Your task to perform on an android device: Is it going to rain this weekend? Image 0: 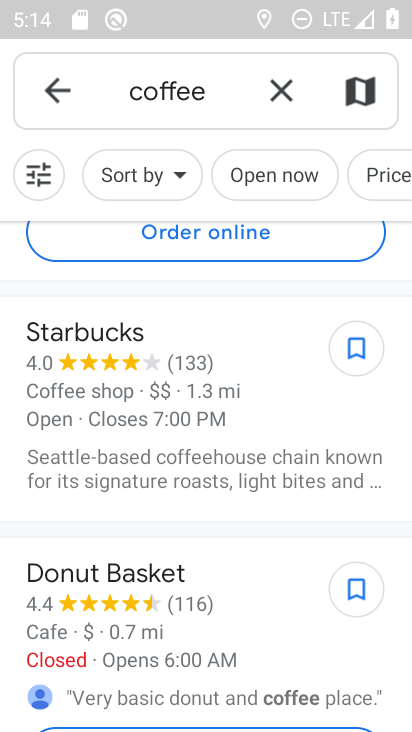
Step 0: press home button
Your task to perform on an android device: Is it going to rain this weekend? Image 1: 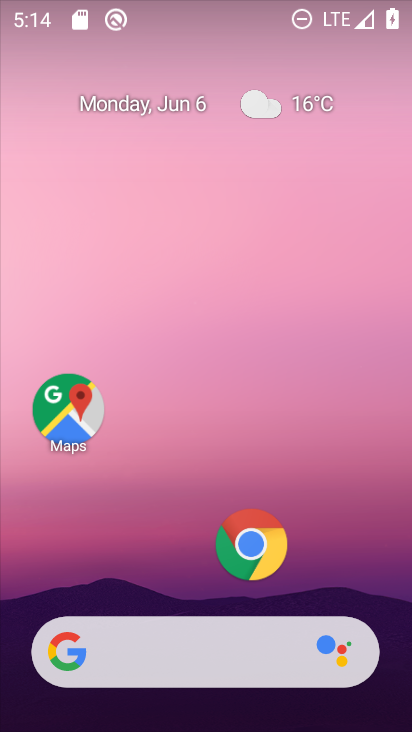
Step 1: click (308, 97)
Your task to perform on an android device: Is it going to rain this weekend? Image 2: 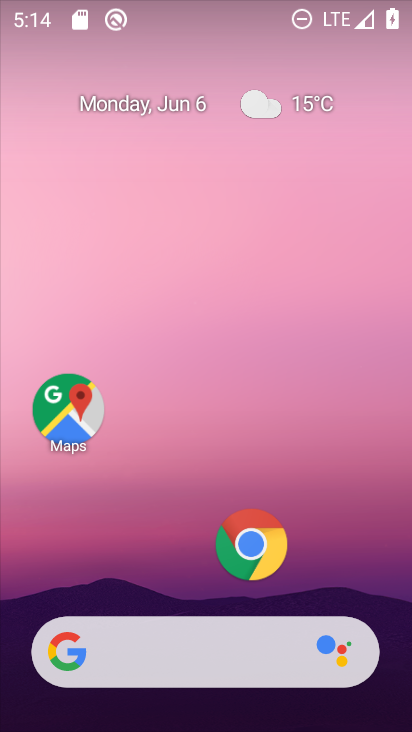
Step 2: click (304, 102)
Your task to perform on an android device: Is it going to rain this weekend? Image 3: 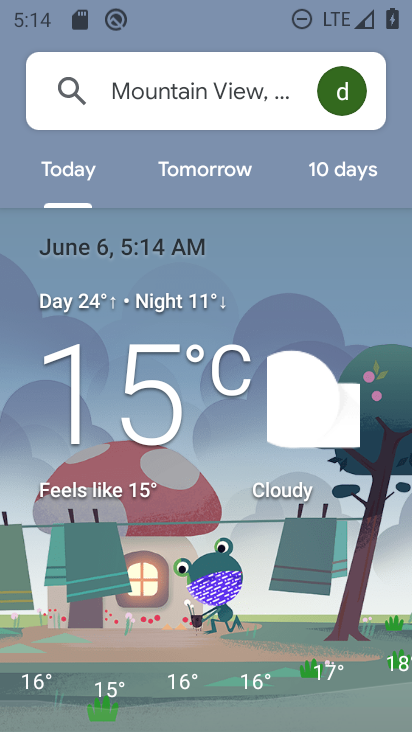
Step 3: drag from (218, 618) to (212, 183)
Your task to perform on an android device: Is it going to rain this weekend? Image 4: 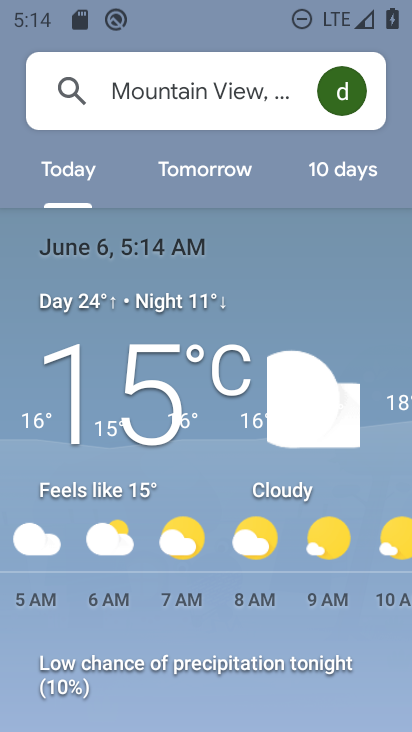
Step 4: drag from (240, 542) to (12, 541)
Your task to perform on an android device: Is it going to rain this weekend? Image 5: 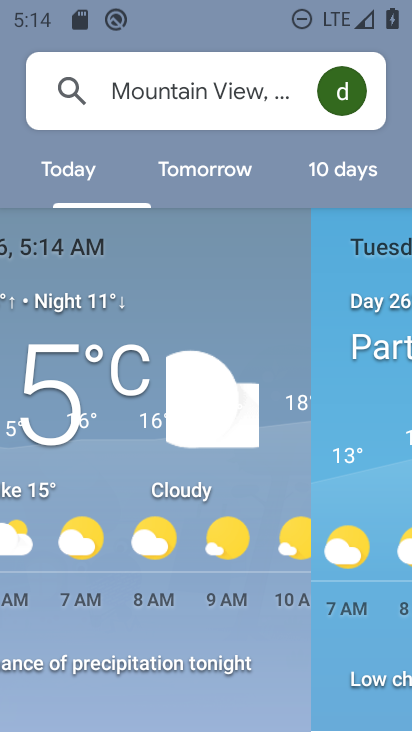
Step 5: click (1, 541)
Your task to perform on an android device: Is it going to rain this weekend? Image 6: 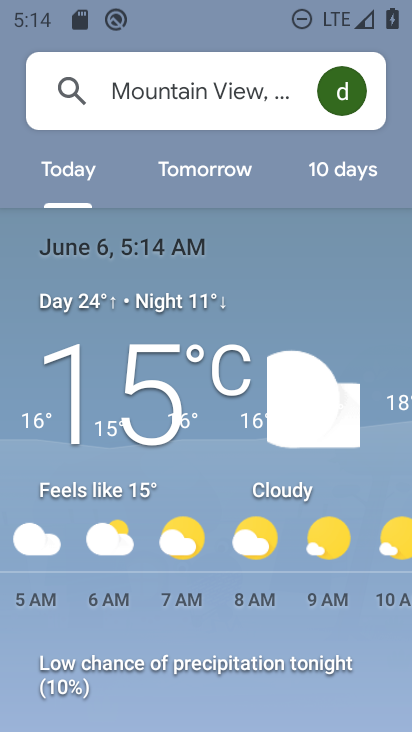
Step 6: drag from (345, 538) to (230, 542)
Your task to perform on an android device: Is it going to rain this weekend? Image 7: 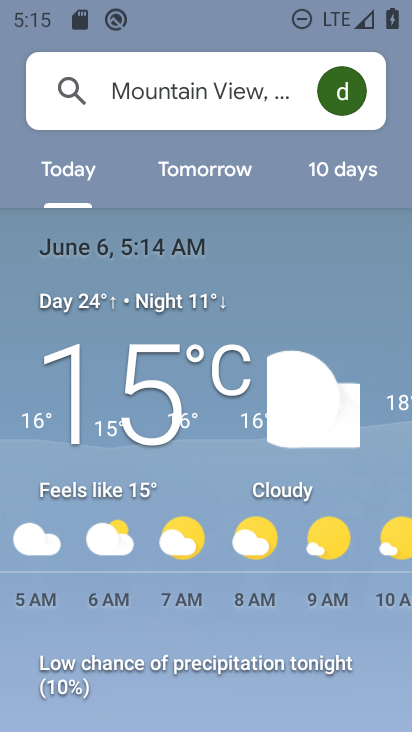
Step 7: click (348, 175)
Your task to perform on an android device: Is it going to rain this weekend? Image 8: 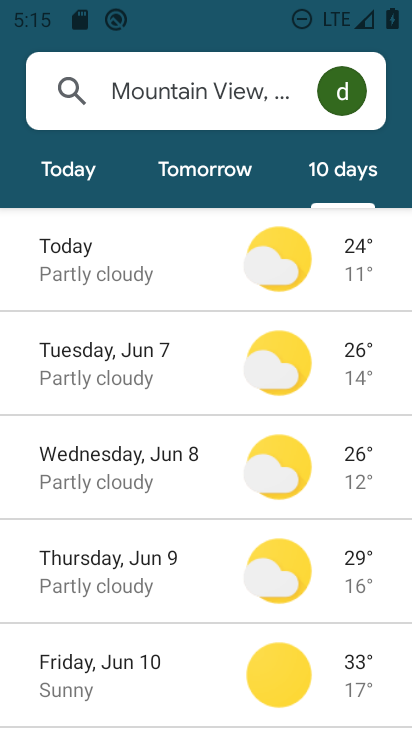
Step 8: task complete